Your task to perform on an android device: check android version Image 0: 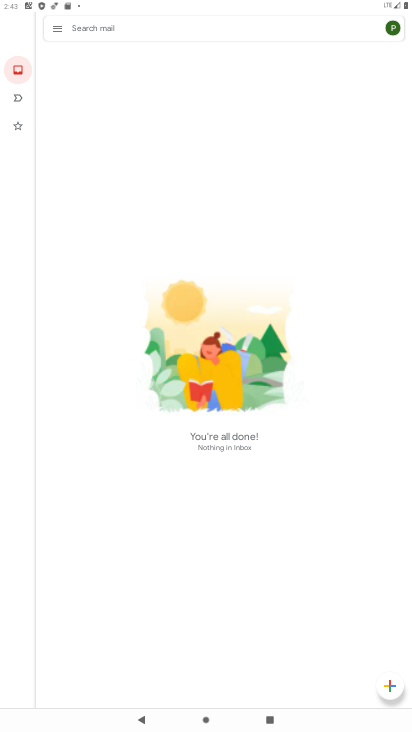
Step 0: press home button
Your task to perform on an android device: check android version Image 1: 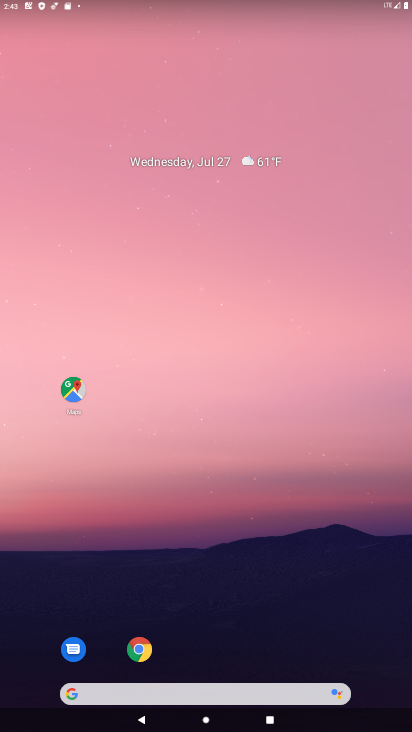
Step 1: drag from (178, 647) to (188, 107)
Your task to perform on an android device: check android version Image 2: 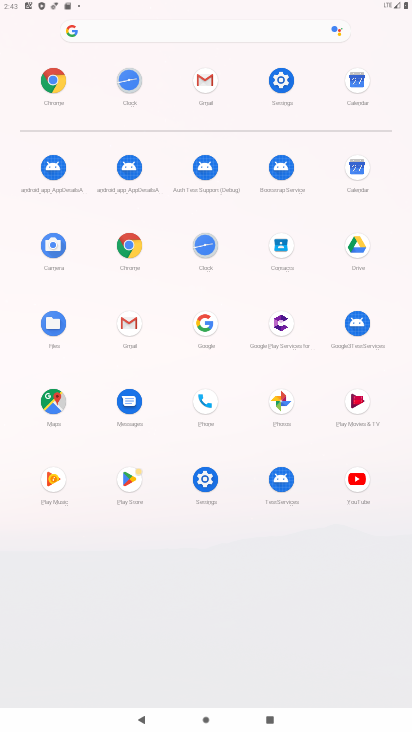
Step 2: click (285, 96)
Your task to perform on an android device: check android version Image 3: 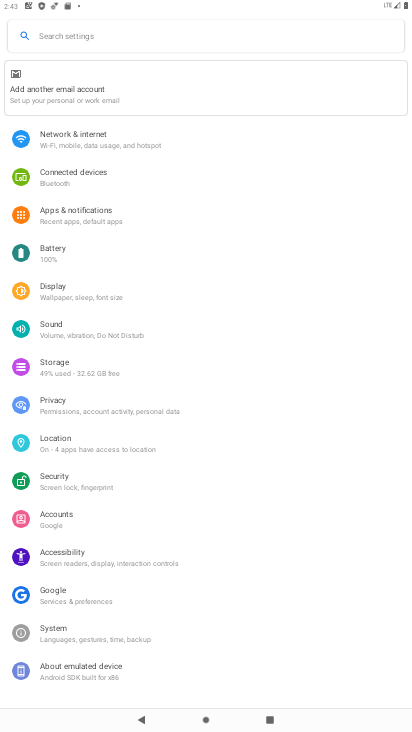
Step 3: click (43, 666)
Your task to perform on an android device: check android version Image 4: 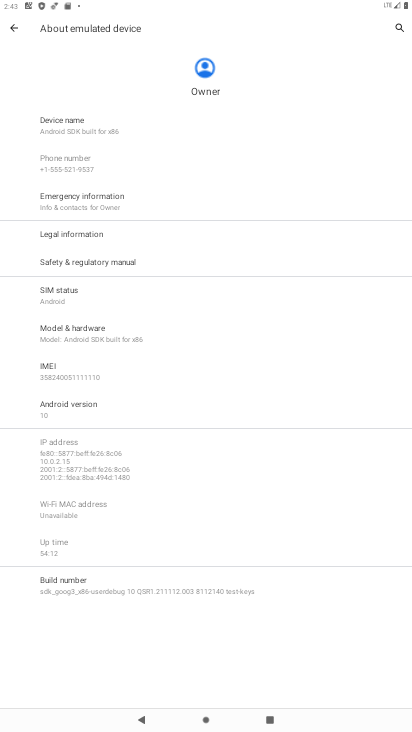
Step 4: click (76, 416)
Your task to perform on an android device: check android version Image 5: 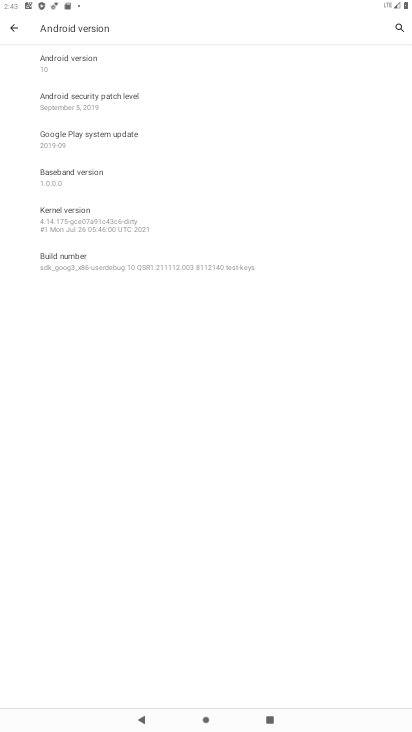
Step 5: task complete